Your task to perform on an android device: Open Youtube and go to "Your channel" Image 0: 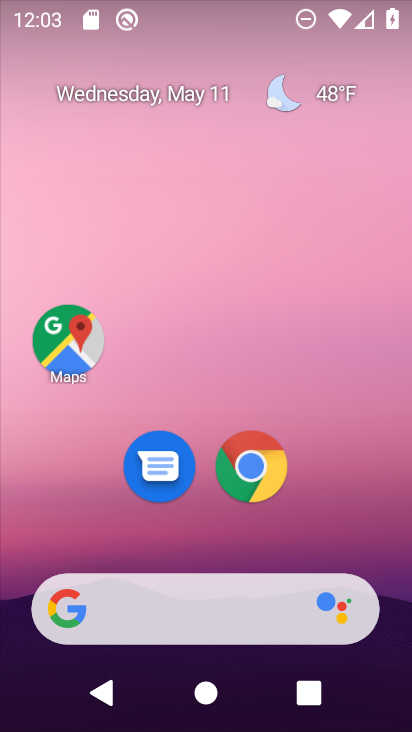
Step 0: drag from (214, 537) to (217, 67)
Your task to perform on an android device: Open Youtube and go to "Your channel" Image 1: 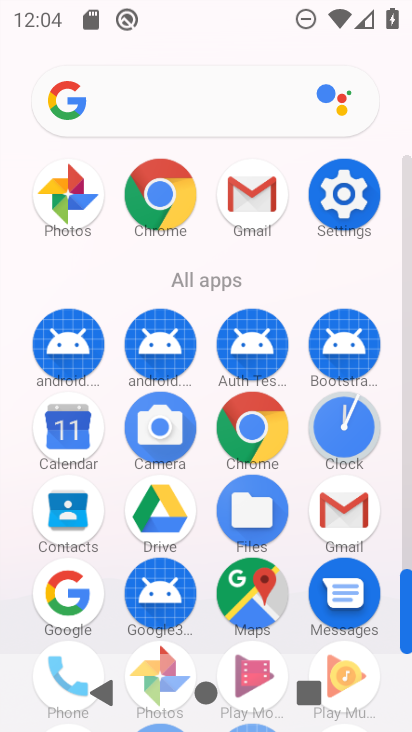
Step 1: drag from (201, 633) to (222, 227)
Your task to perform on an android device: Open Youtube and go to "Your channel" Image 2: 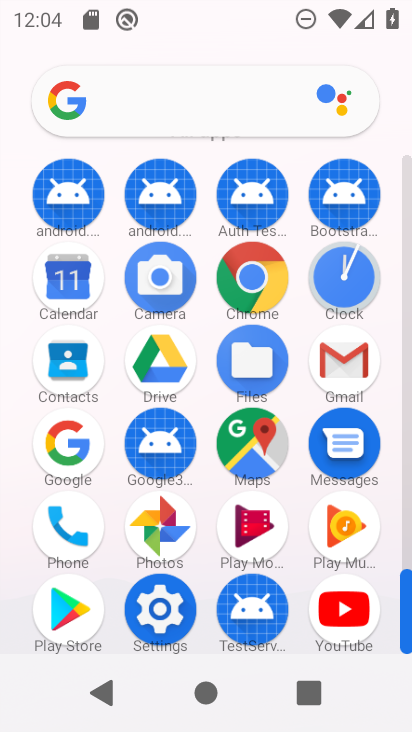
Step 2: click (340, 602)
Your task to perform on an android device: Open Youtube and go to "Your channel" Image 3: 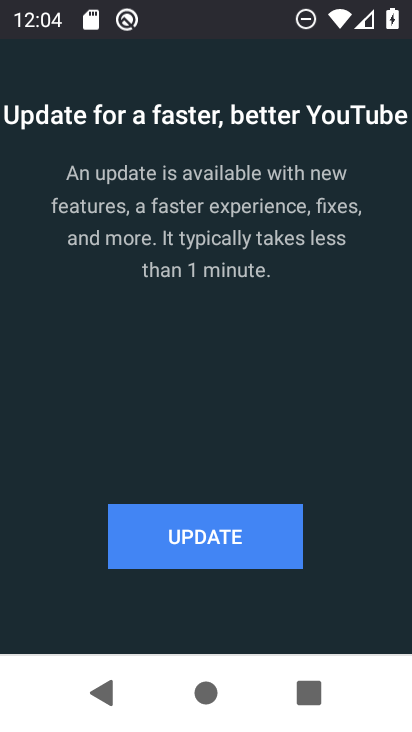
Step 3: click (207, 534)
Your task to perform on an android device: Open Youtube and go to "Your channel" Image 4: 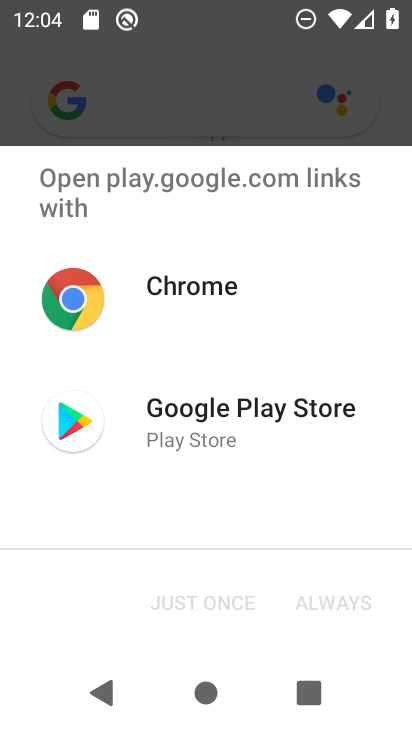
Step 4: click (155, 426)
Your task to perform on an android device: Open Youtube and go to "Your channel" Image 5: 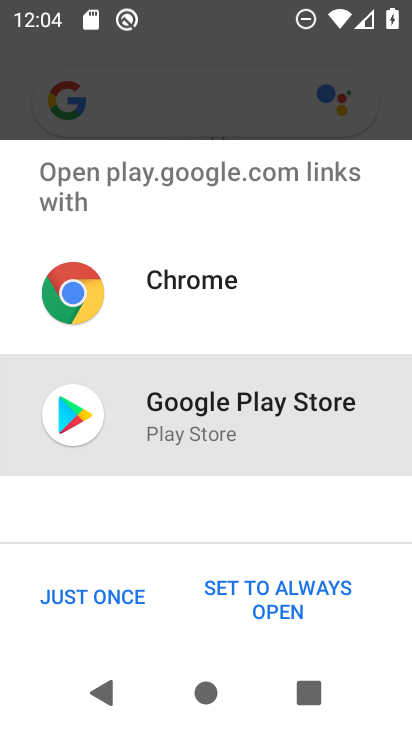
Step 5: click (99, 595)
Your task to perform on an android device: Open Youtube and go to "Your channel" Image 6: 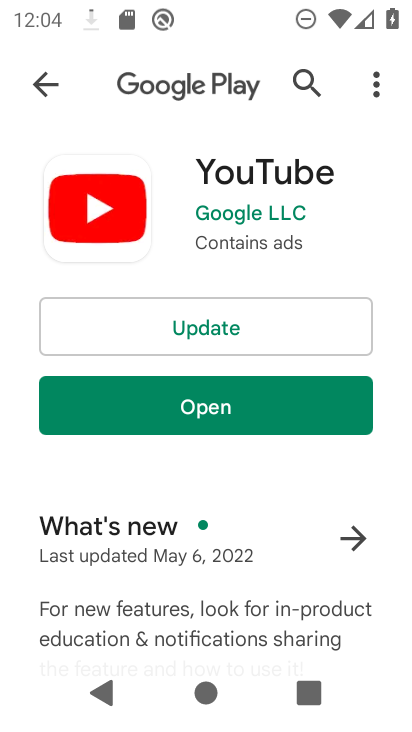
Step 6: click (220, 326)
Your task to perform on an android device: Open Youtube and go to "Your channel" Image 7: 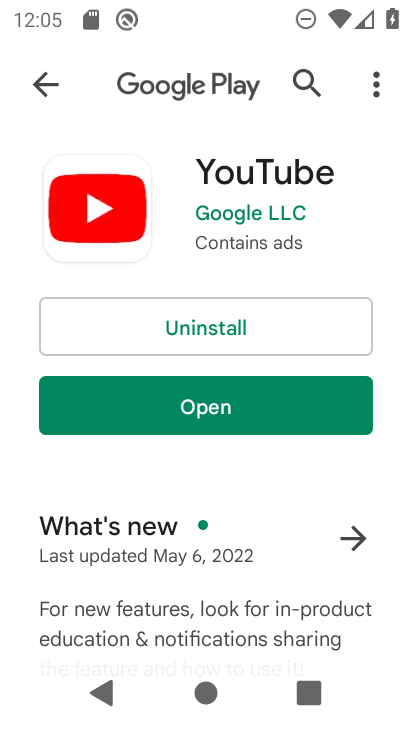
Step 7: click (207, 414)
Your task to perform on an android device: Open Youtube and go to "Your channel" Image 8: 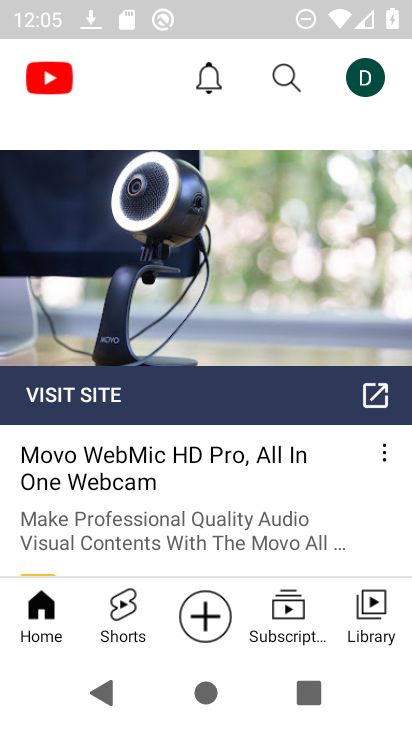
Step 8: click (365, 66)
Your task to perform on an android device: Open Youtube and go to "Your channel" Image 9: 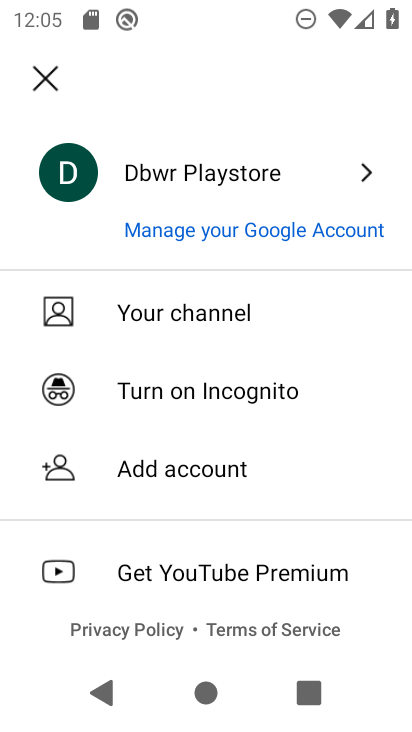
Step 9: click (102, 308)
Your task to perform on an android device: Open Youtube and go to "Your channel" Image 10: 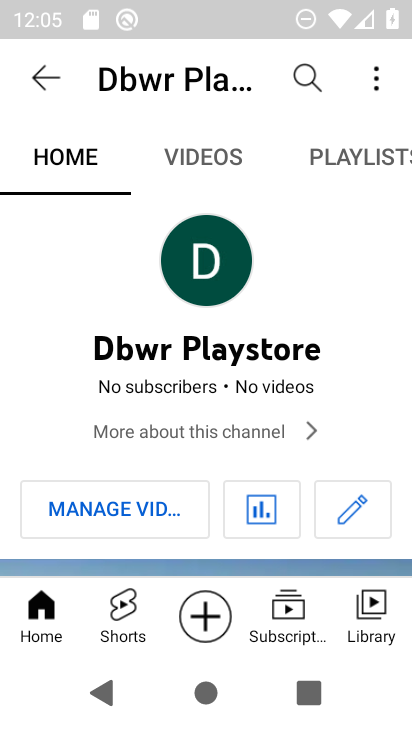
Step 10: task complete